Your task to perform on an android device: Go to notification settings Image 0: 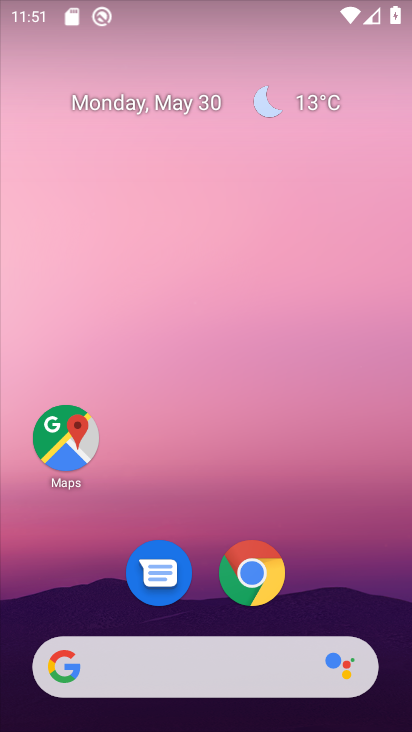
Step 0: drag from (70, 630) to (231, 200)
Your task to perform on an android device: Go to notification settings Image 1: 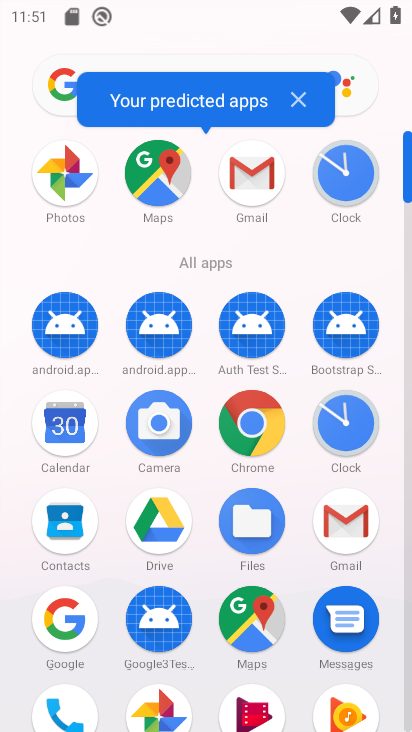
Step 1: drag from (201, 685) to (304, 344)
Your task to perform on an android device: Go to notification settings Image 2: 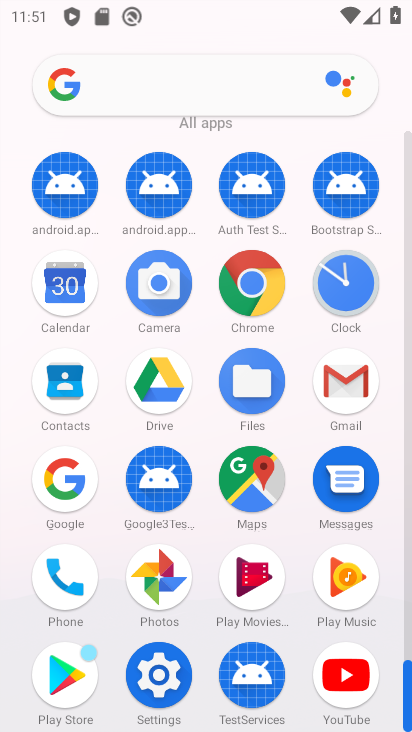
Step 2: click (162, 681)
Your task to perform on an android device: Go to notification settings Image 3: 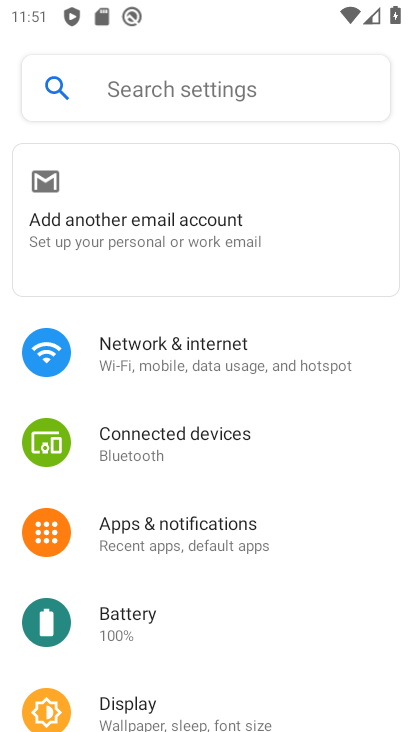
Step 3: drag from (208, 683) to (342, 287)
Your task to perform on an android device: Go to notification settings Image 4: 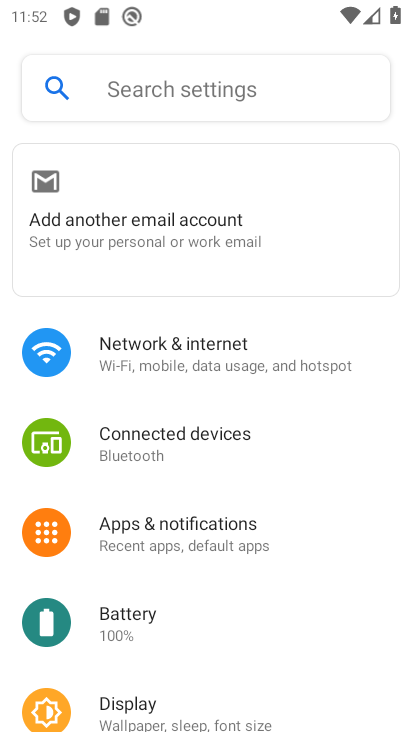
Step 4: click (248, 539)
Your task to perform on an android device: Go to notification settings Image 5: 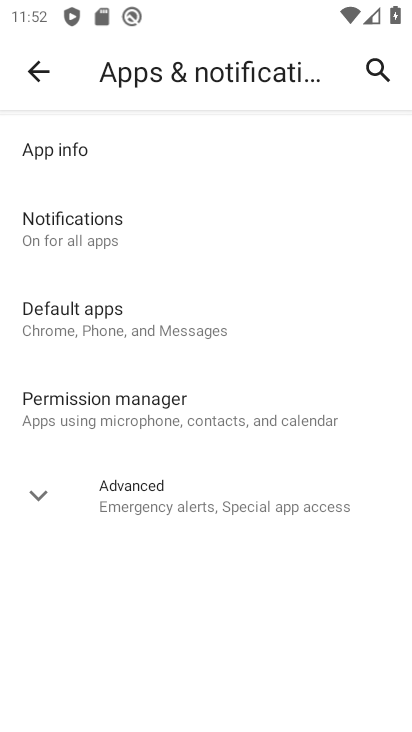
Step 5: click (137, 242)
Your task to perform on an android device: Go to notification settings Image 6: 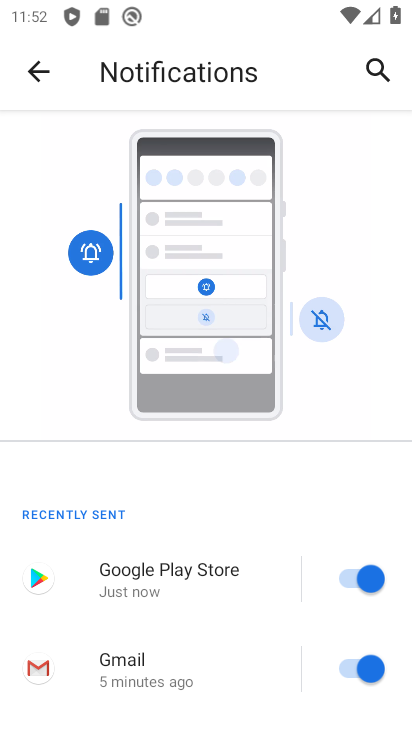
Step 6: task complete